Your task to perform on an android device: Empty the shopping cart on target.com. Search for acer predator on target.com, select the first entry, add it to the cart, then select checkout. Image 0: 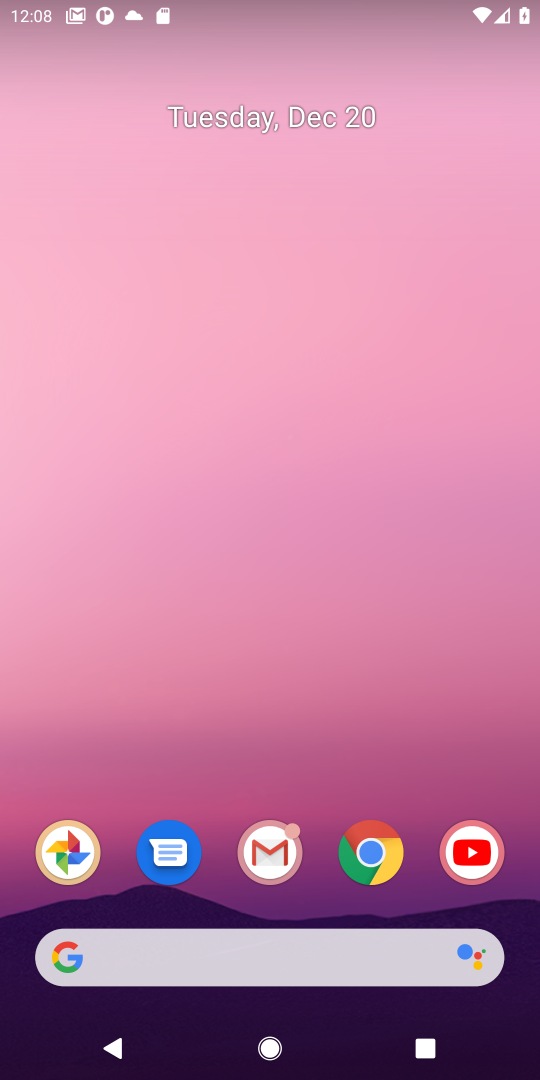
Step 0: click (531, 938)
Your task to perform on an android device: Empty the shopping cart on target.com. Search for acer predator on target.com, select the first entry, add it to the cart, then select checkout. Image 1: 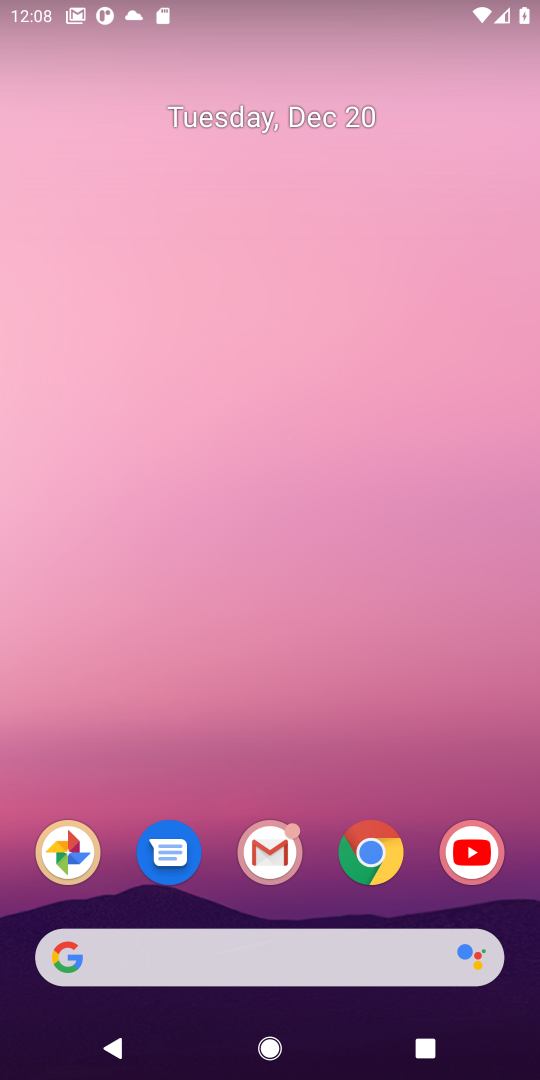
Step 1: click (370, 855)
Your task to perform on an android device: Empty the shopping cart on target.com. Search for acer predator on target.com, select the first entry, add it to the cart, then select checkout. Image 2: 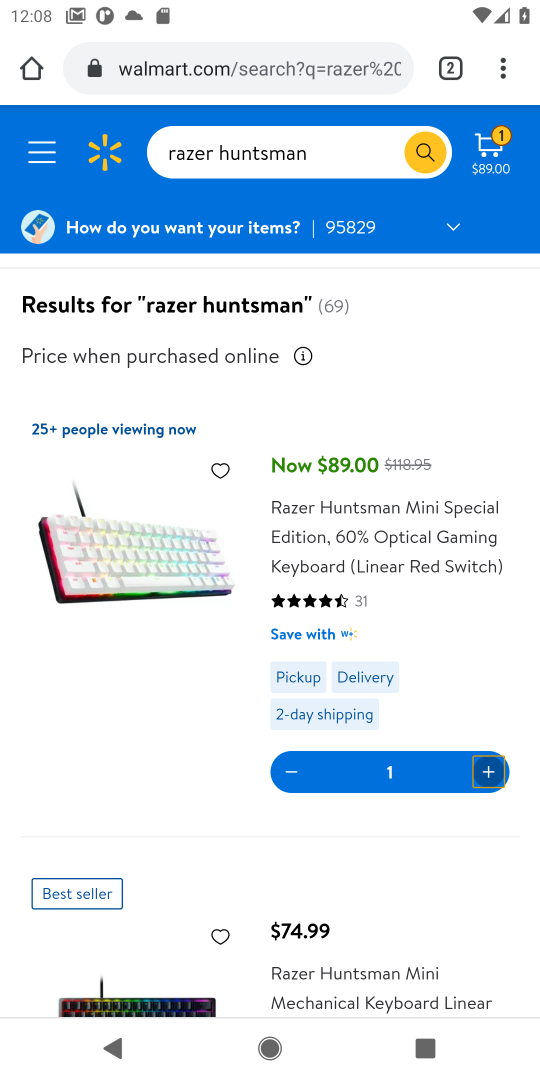
Step 2: click (205, 76)
Your task to perform on an android device: Empty the shopping cart on target.com. Search for acer predator on target.com, select the first entry, add it to the cart, then select checkout. Image 3: 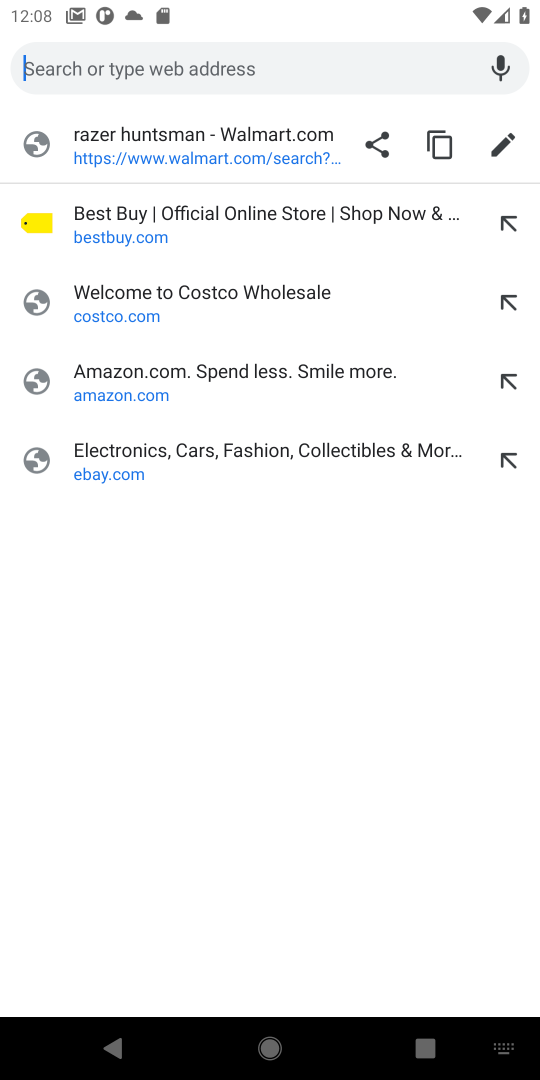
Step 3: type "target.com"
Your task to perform on an android device: Empty the shopping cart on target.com. Search for acer predator on target.com, select the first entry, add it to the cart, then select checkout. Image 4: 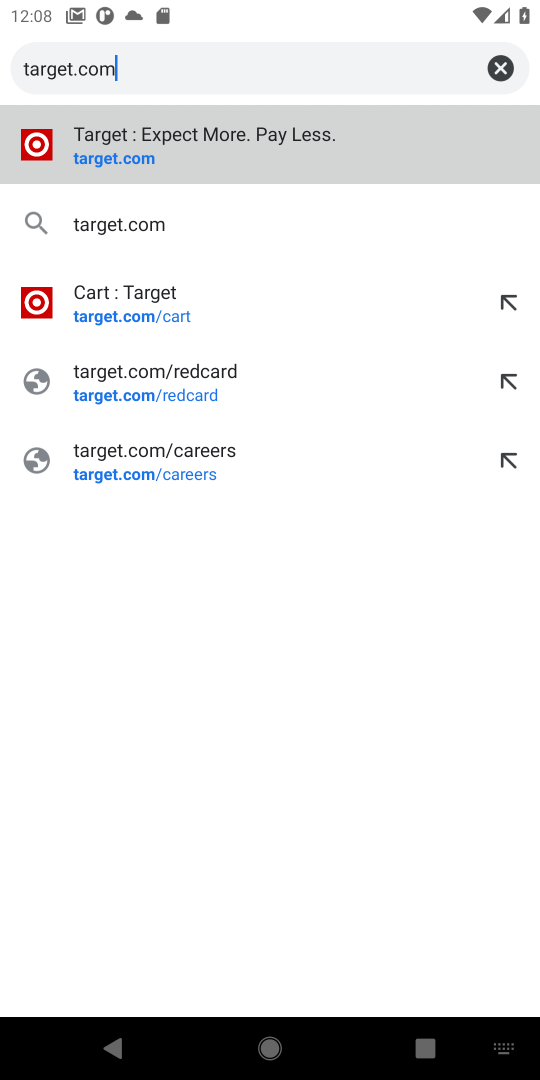
Step 4: click (101, 161)
Your task to perform on an android device: Empty the shopping cart on target.com. Search for acer predator on target.com, select the first entry, add it to the cart, then select checkout. Image 5: 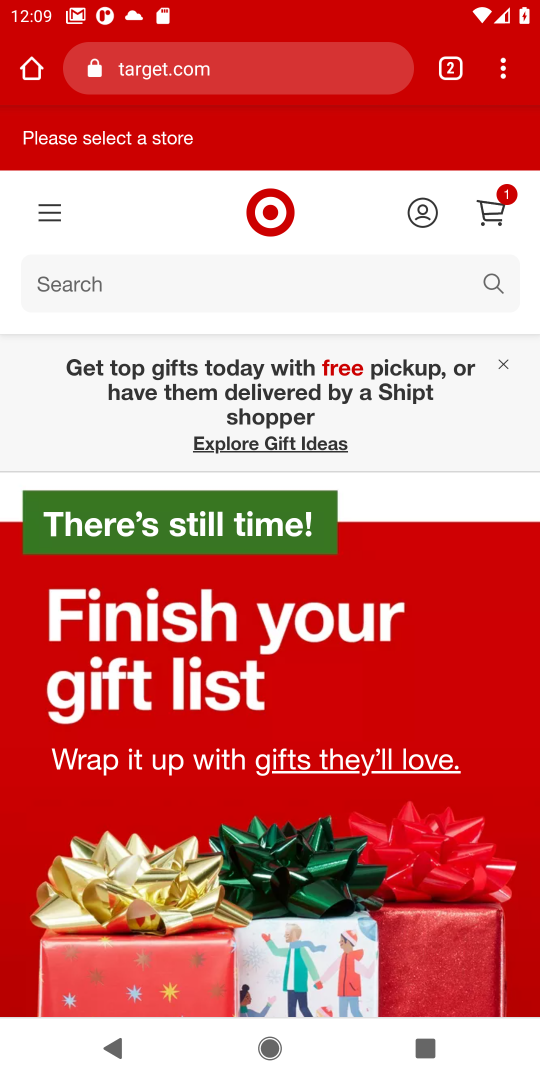
Step 5: click (489, 223)
Your task to perform on an android device: Empty the shopping cart on target.com. Search for acer predator on target.com, select the first entry, add it to the cart, then select checkout. Image 6: 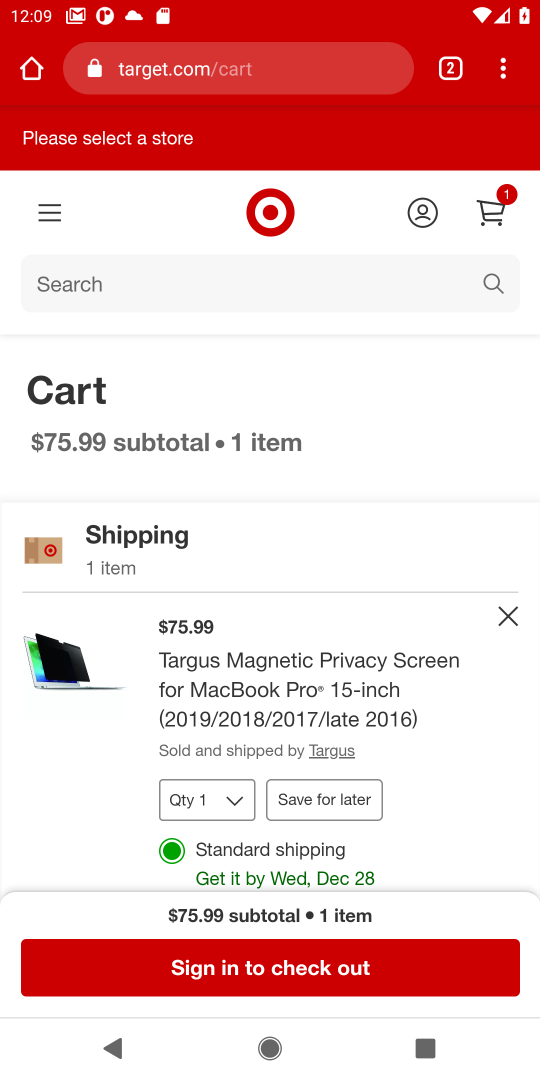
Step 6: click (503, 615)
Your task to perform on an android device: Empty the shopping cart on target.com. Search for acer predator on target.com, select the first entry, add it to the cart, then select checkout. Image 7: 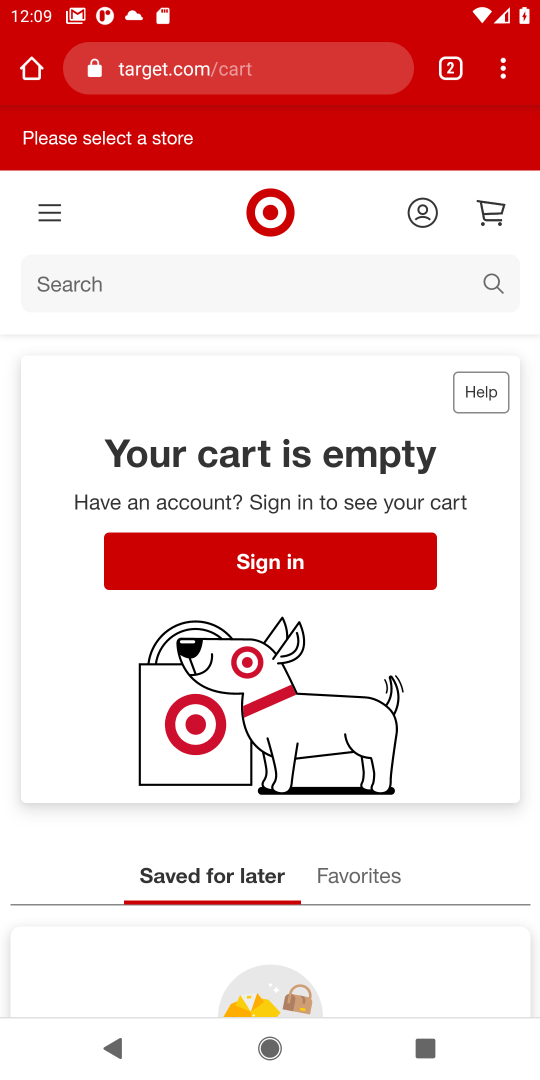
Step 7: click (89, 283)
Your task to perform on an android device: Empty the shopping cart on target.com. Search for acer predator on target.com, select the first entry, add it to the cart, then select checkout. Image 8: 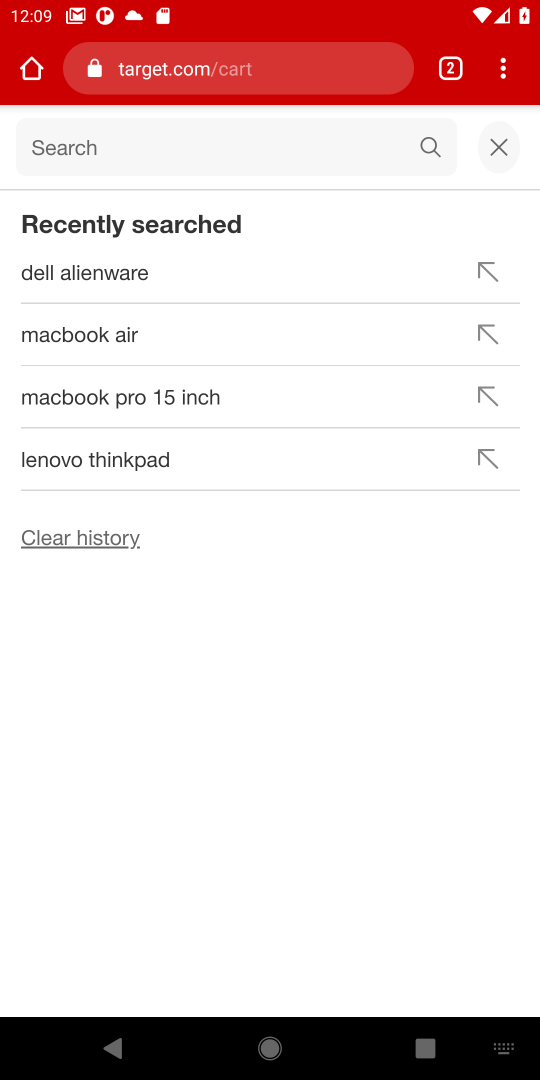
Step 8: type "acer predator"
Your task to perform on an android device: Empty the shopping cart on target.com. Search for acer predator on target.com, select the first entry, add it to the cart, then select checkout. Image 9: 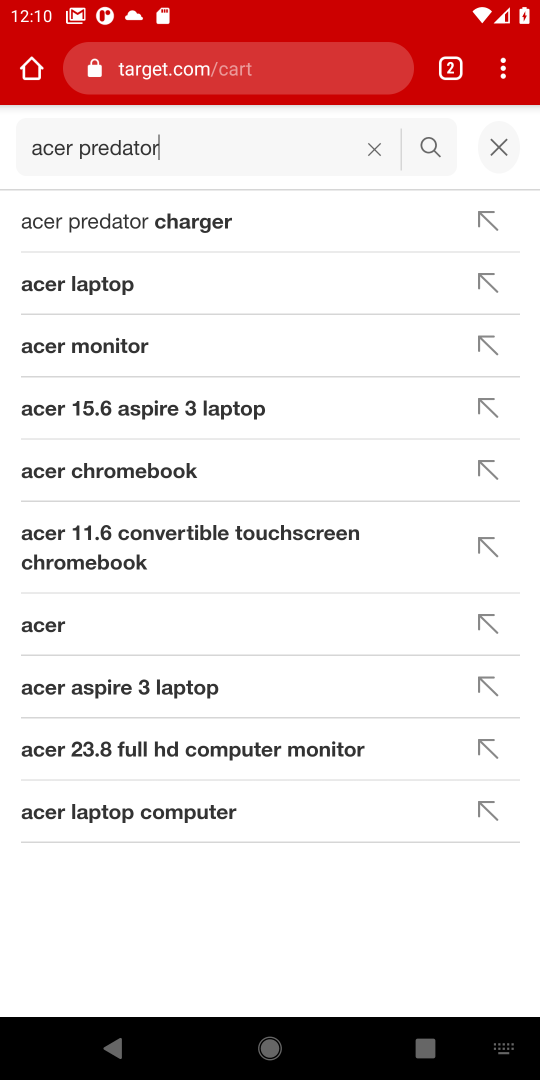
Step 9: click (422, 149)
Your task to perform on an android device: Empty the shopping cart on target.com. Search for acer predator on target.com, select the first entry, add it to the cart, then select checkout. Image 10: 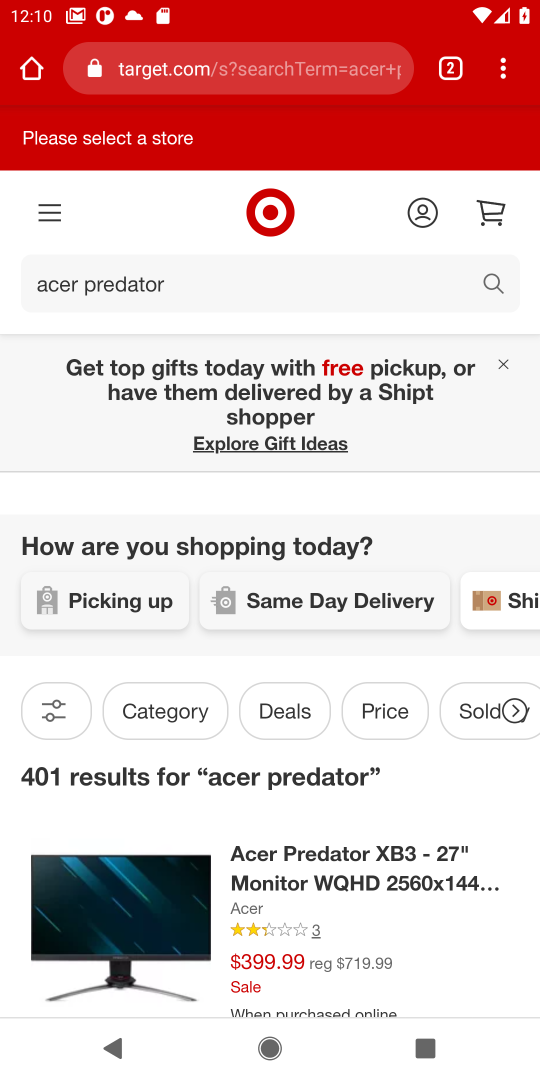
Step 10: drag from (206, 733) to (235, 432)
Your task to perform on an android device: Empty the shopping cart on target.com. Search for acer predator on target.com, select the first entry, add it to the cart, then select checkout. Image 11: 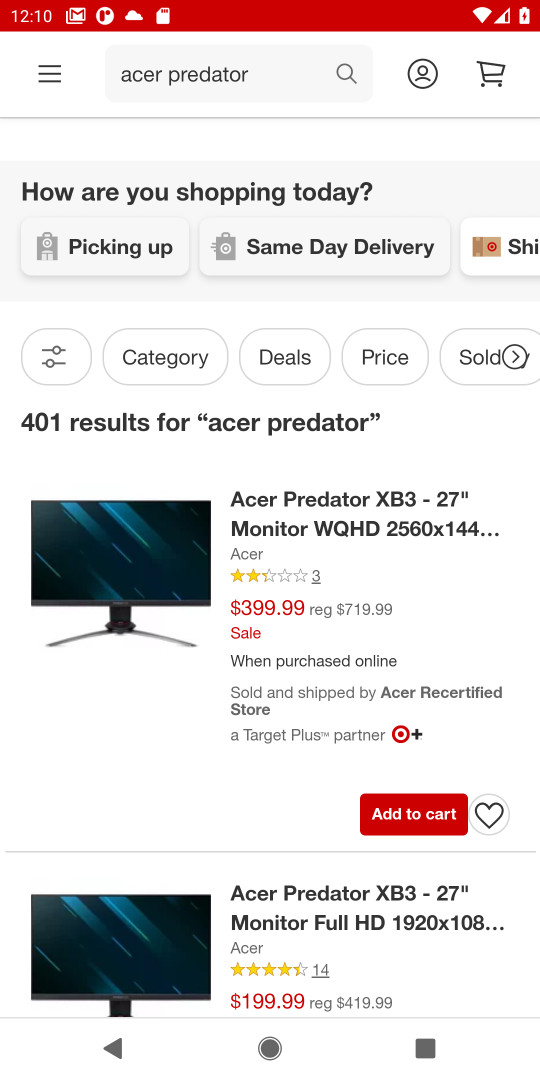
Step 11: click (404, 812)
Your task to perform on an android device: Empty the shopping cart on target.com. Search for acer predator on target.com, select the first entry, add it to the cart, then select checkout. Image 12: 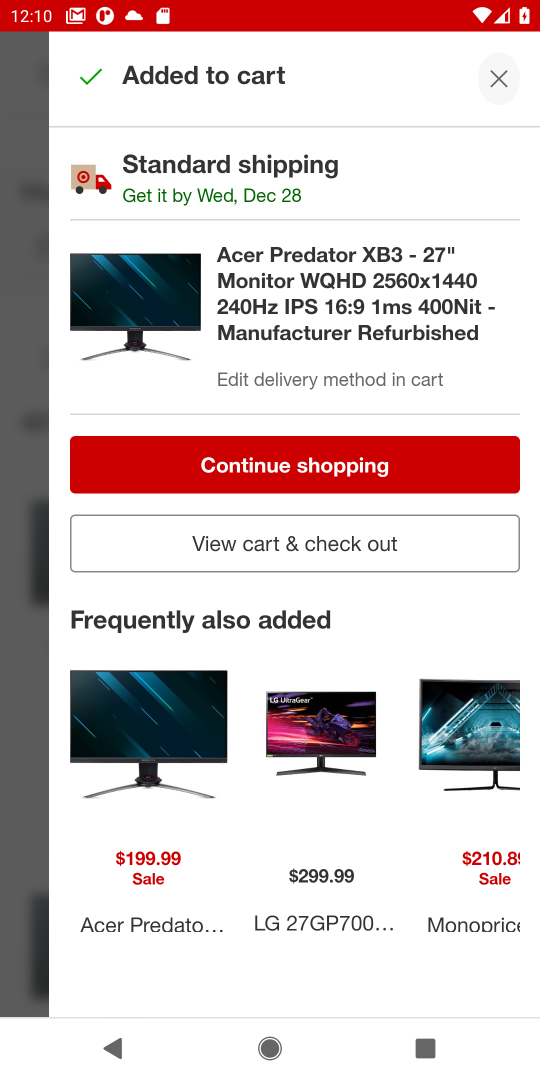
Step 12: click (275, 560)
Your task to perform on an android device: Empty the shopping cart on target.com. Search for acer predator on target.com, select the first entry, add it to the cart, then select checkout. Image 13: 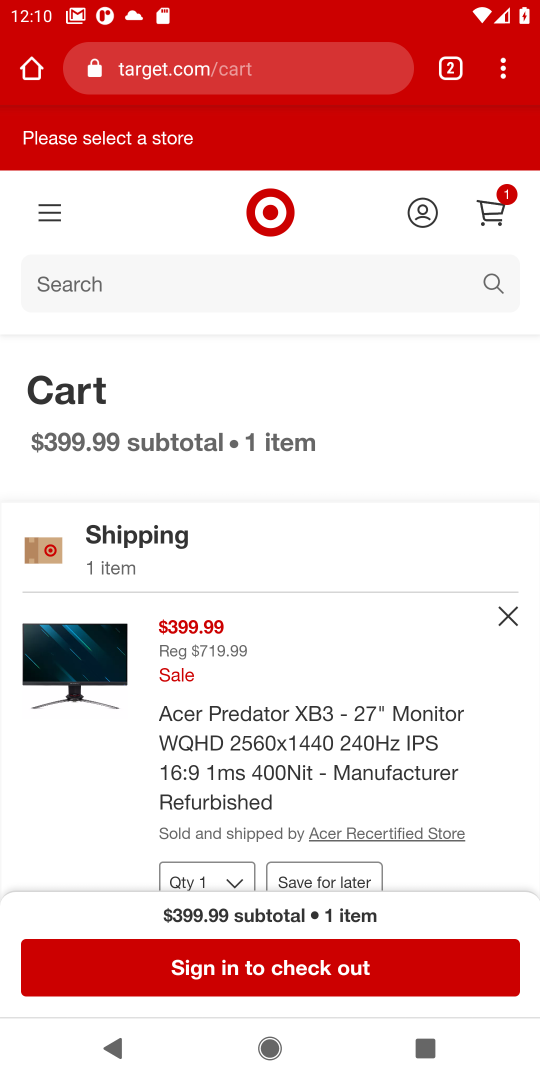
Step 13: click (250, 966)
Your task to perform on an android device: Empty the shopping cart on target.com. Search for acer predator on target.com, select the first entry, add it to the cart, then select checkout. Image 14: 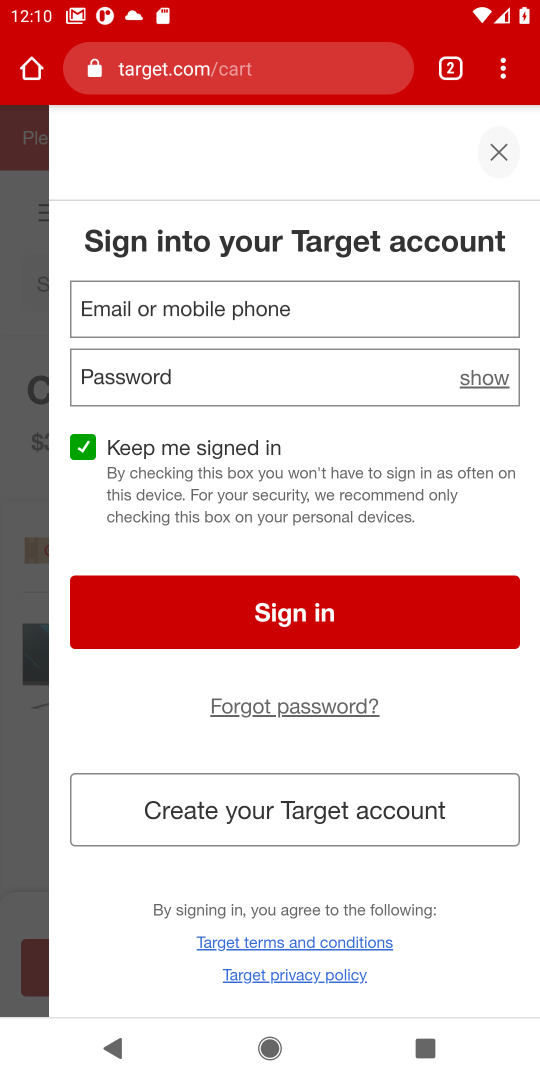
Step 14: task complete